Your task to perform on an android device: delete the emails in spam in the gmail app Image 0: 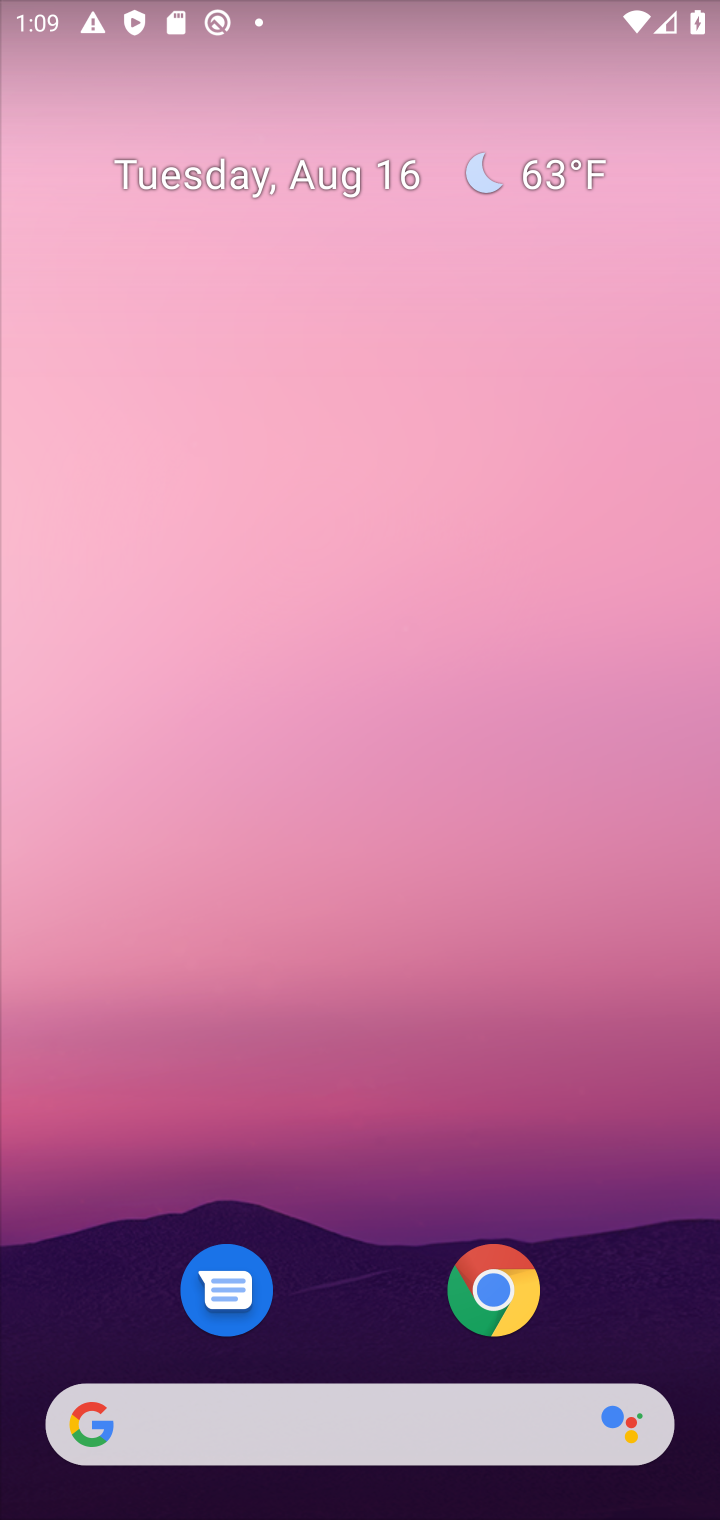
Step 0: drag from (106, 829) to (228, 145)
Your task to perform on an android device: delete the emails in spam in the gmail app Image 1: 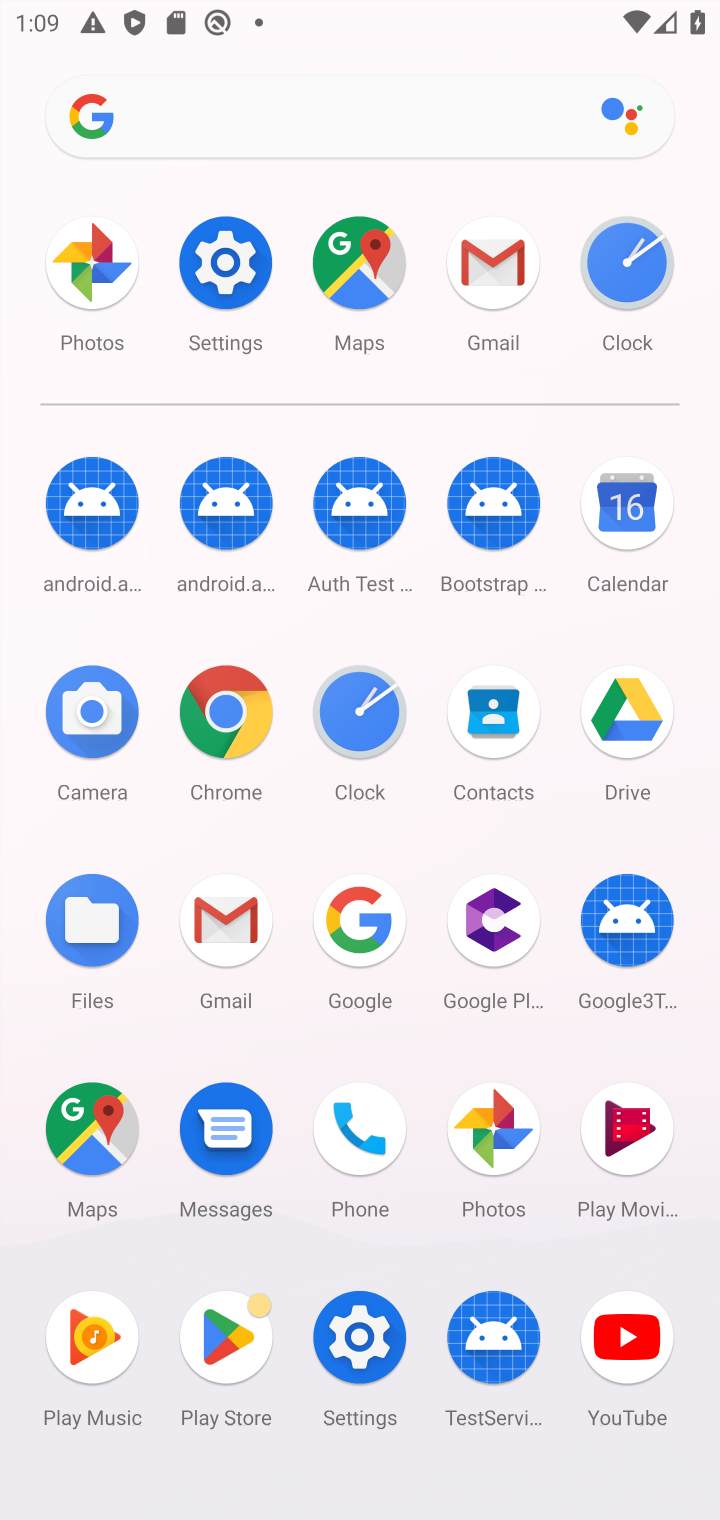
Step 1: click (459, 288)
Your task to perform on an android device: delete the emails in spam in the gmail app Image 2: 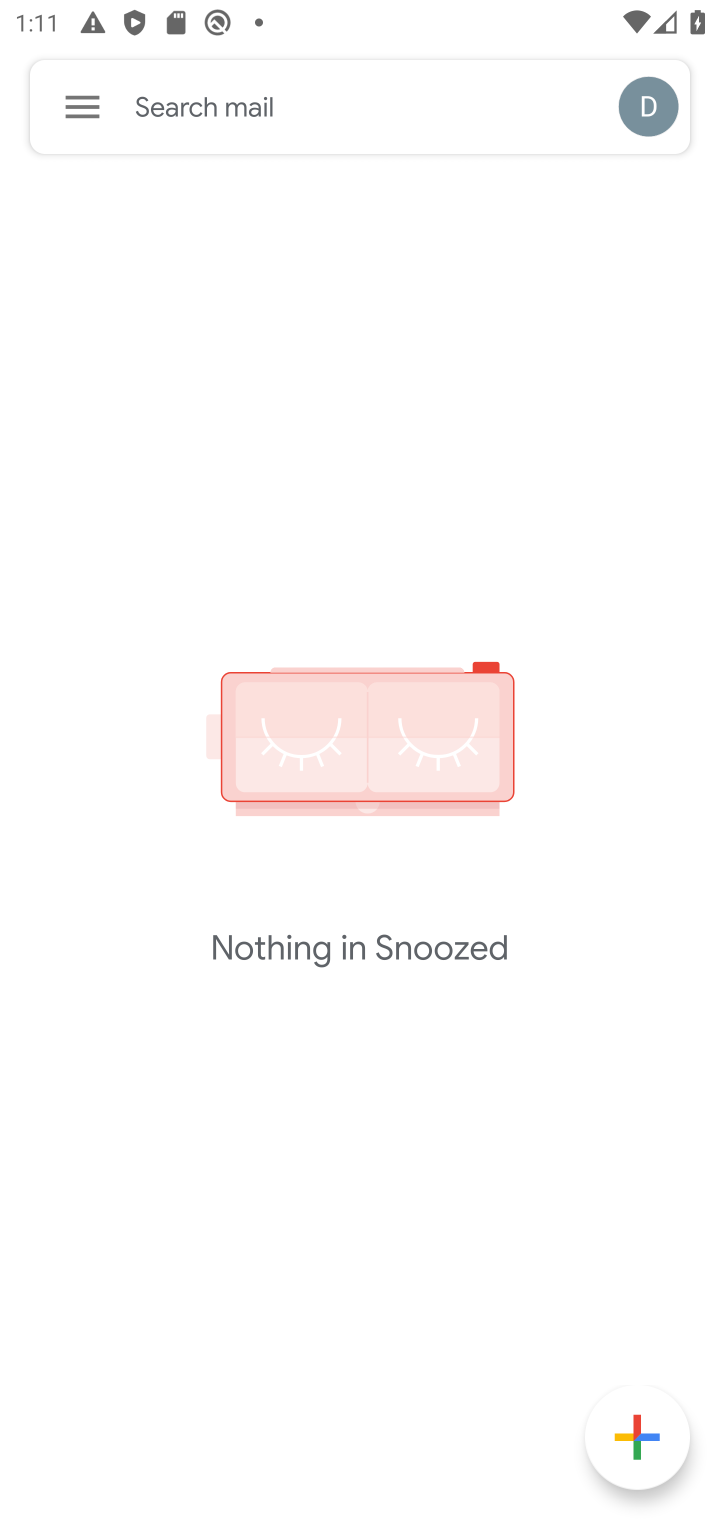
Step 2: task complete